Your task to perform on an android device: Go to ESPN.com Image 0: 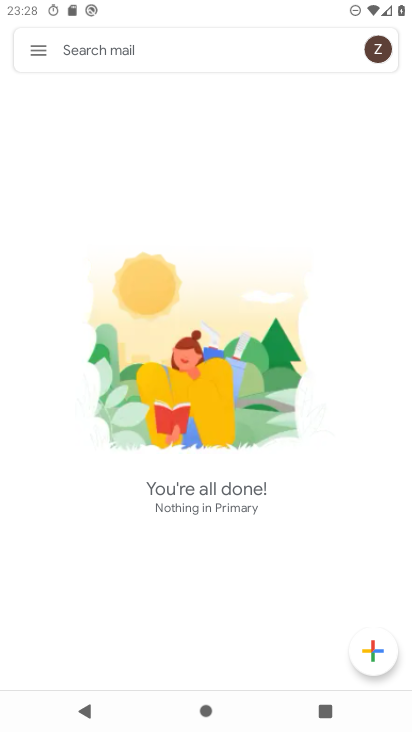
Step 0: press home button
Your task to perform on an android device: Go to ESPN.com Image 1: 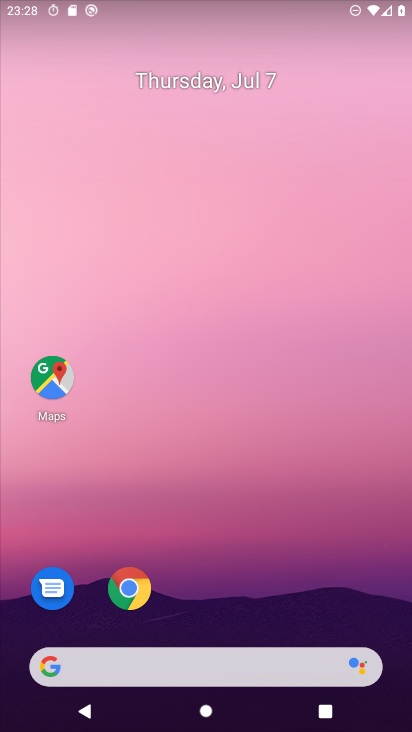
Step 1: drag from (274, 557) to (245, 139)
Your task to perform on an android device: Go to ESPN.com Image 2: 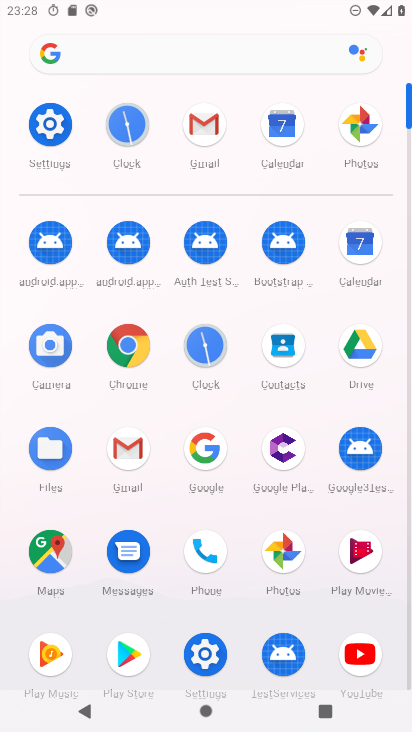
Step 2: click (128, 346)
Your task to perform on an android device: Go to ESPN.com Image 3: 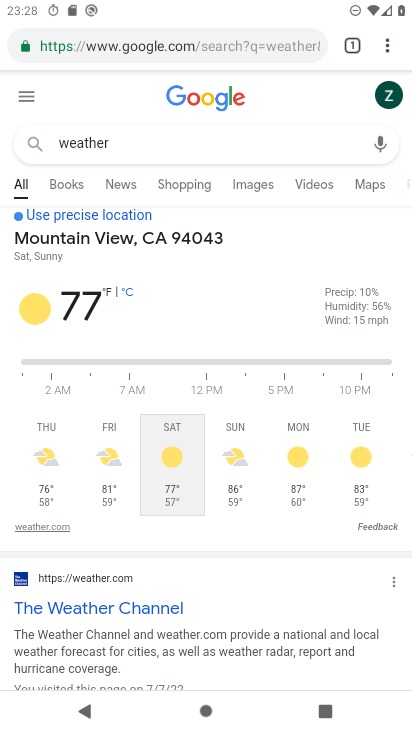
Step 3: click (261, 43)
Your task to perform on an android device: Go to ESPN.com Image 4: 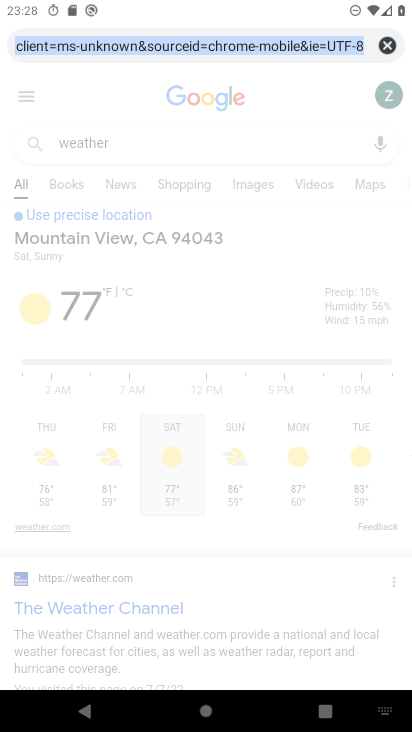
Step 4: click (389, 44)
Your task to perform on an android device: Go to ESPN.com Image 5: 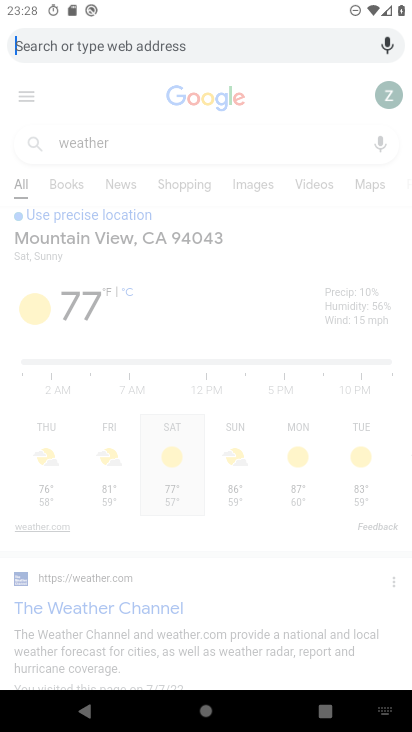
Step 5: type "ESPN.com"
Your task to perform on an android device: Go to ESPN.com Image 6: 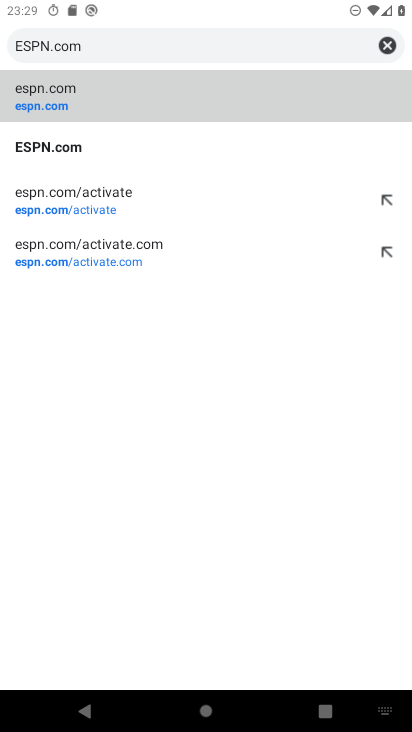
Step 6: click (60, 106)
Your task to perform on an android device: Go to ESPN.com Image 7: 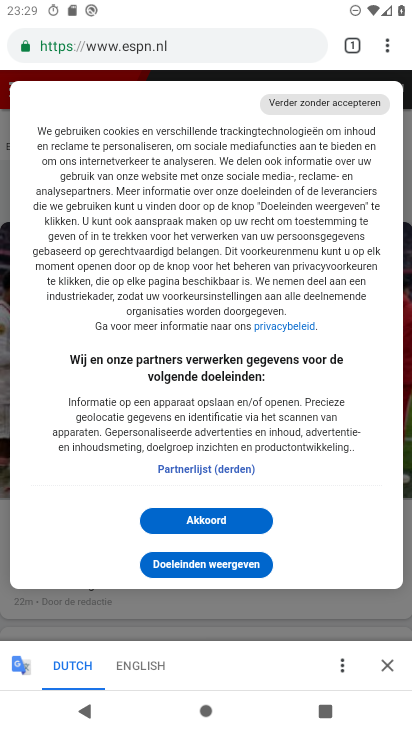
Step 7: task complete